Your task to perform on an android device: Open CNN.com Image 0: 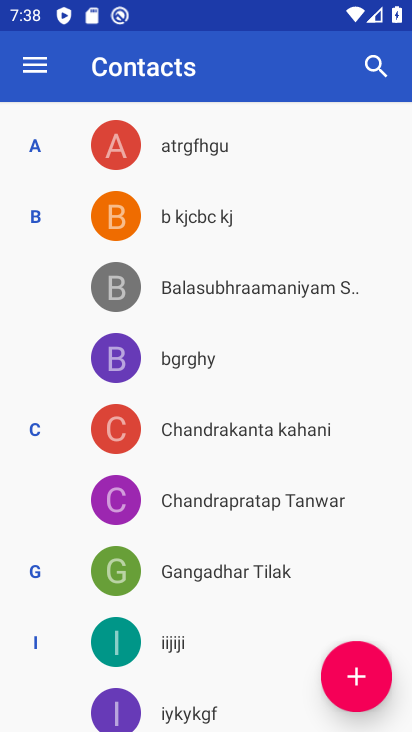
Step 0: press home button
Your task to perform on an android device: Open CNN.com Image 1: 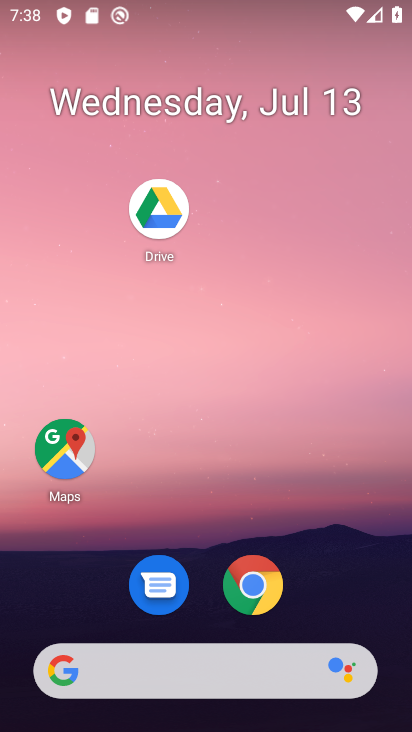
Step 1: click (258, 583)
Your task to perform on an android device: Open CNN.com Image 2: 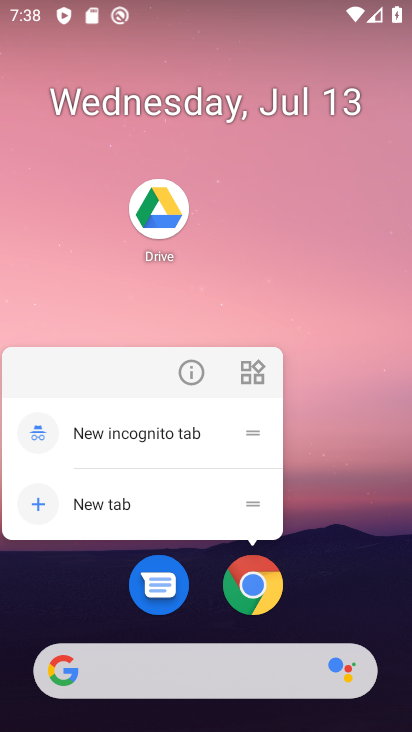
Step 2: click (244, 579)
Your task to perform on an android device: Open CNN.com Image 3: 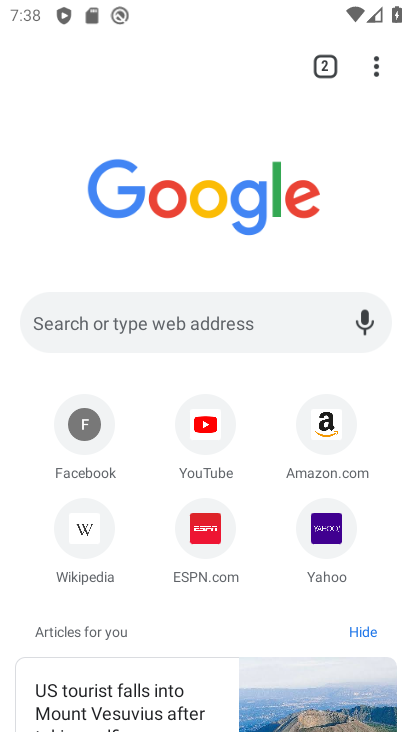
Step 3: click (117, 320)
Your task to perform on an android device: Open CNN.com Image 4: 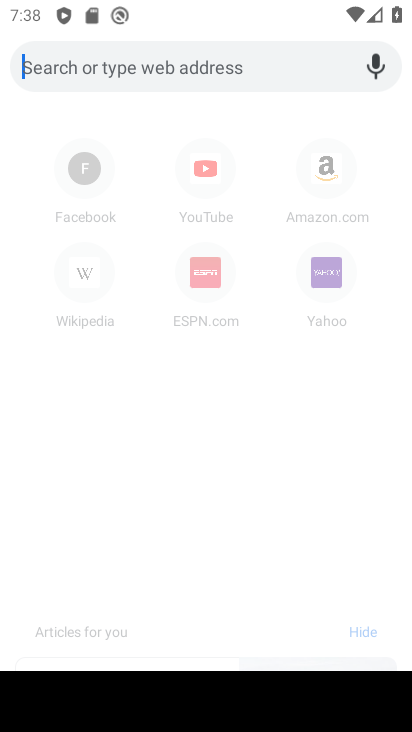
Step 4: type "cnn.com"
Your task to perform on an android device: Open CNN.com Image 5: 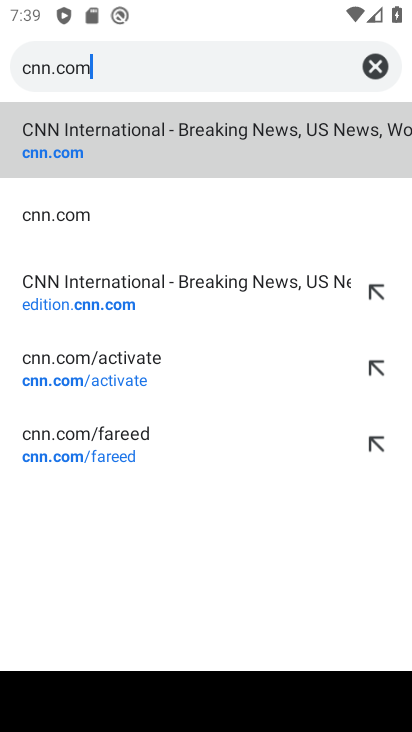
Step 5: click (232, 144)
Your task to perform on an android device: Open CNN.com Image 6: 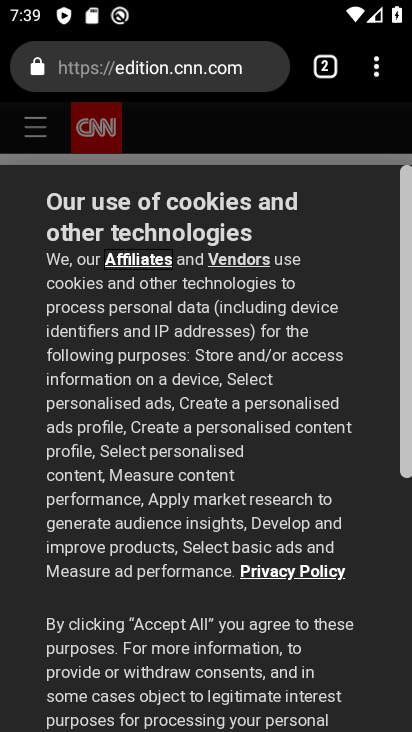
Step 6: drag from (147, 641) to (345, 180)
Your task to perform on an android device: Open CNN.com Image 7: 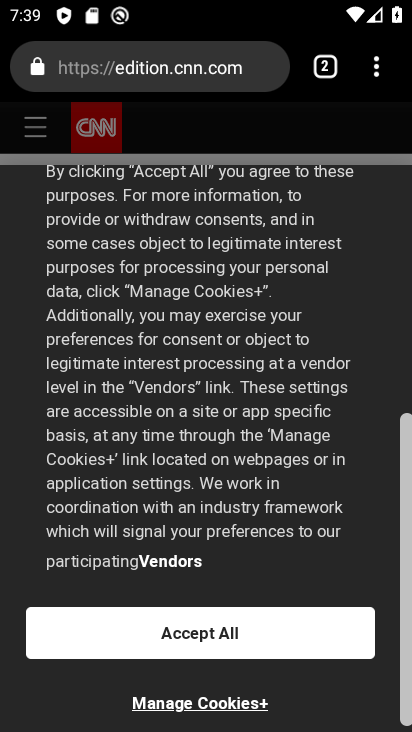
Step 7: click (220, 634)
Your task to perform on an android device: Open CNN.com Image 8: 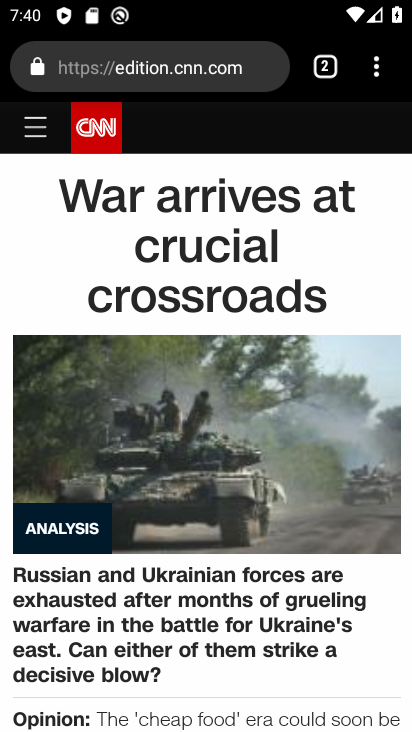
Step 8: task complete